Your task to perform on an android device: Go to battery settings Image 0: 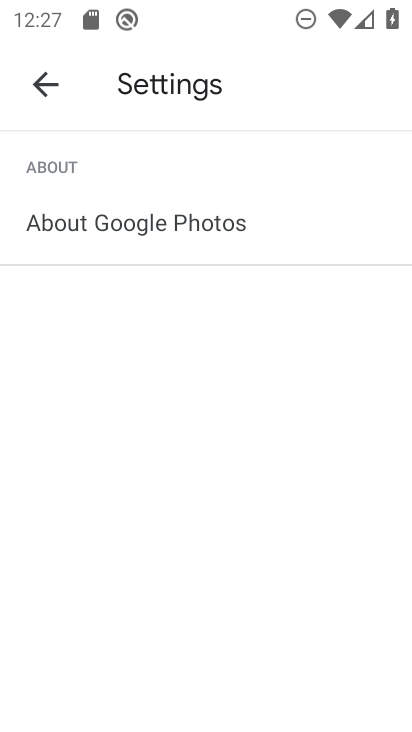
Step 0: press home button
Your task to perform on an android device: Go to battery settings Image 1: 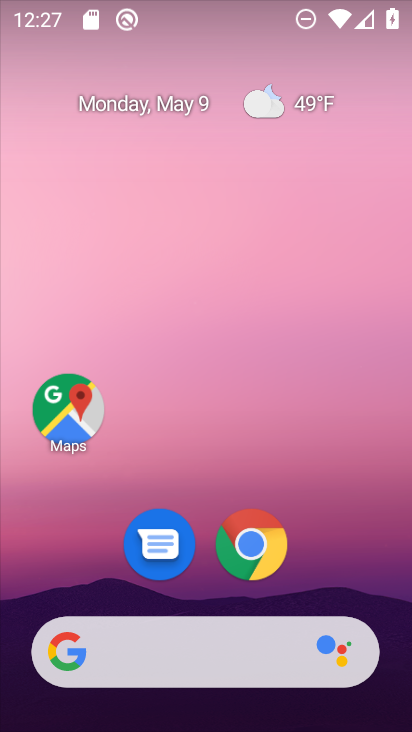
Step 1: drag from (340, 534) to (394, 85)
Your task to perform on an android device: Go to battery settings Image 2: 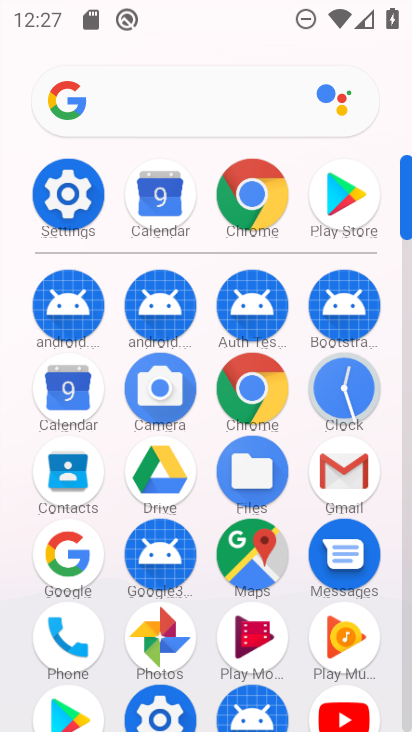
Step 2: click (64, 195)
Your task to perform on an android device: Go to battery settings Image 3: 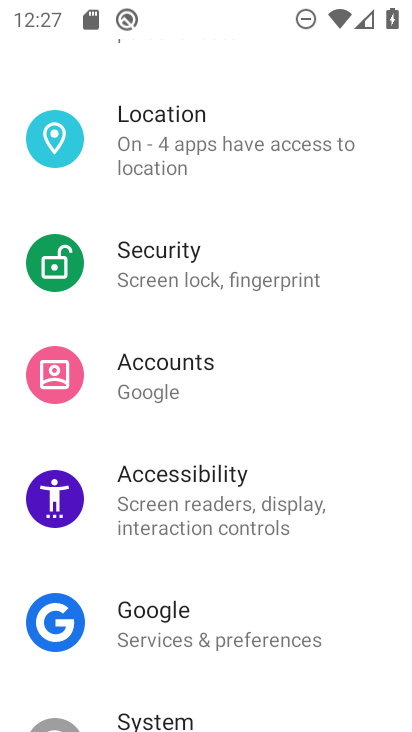
Step 3: drag from (207, 693) to (261, 308)
Your task to perform on an android device: Go to battery settings Image 4: 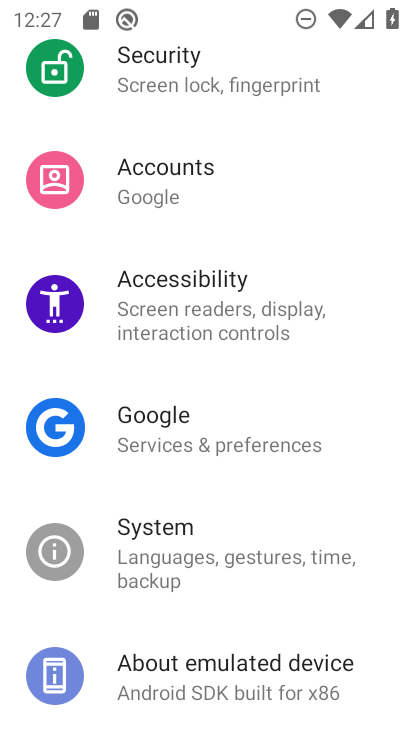
Step 4: drag from (307, 198) to (315, 642)
Your task to perform on an android device: Go to battery settings Image 5: 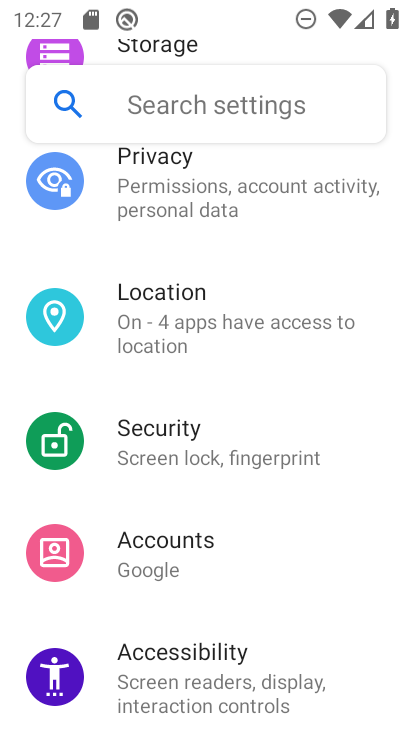
Step 5: drag from (298, 274) to (266, 676)
Your task to perform on an android device: Go to battery settings Image 6: 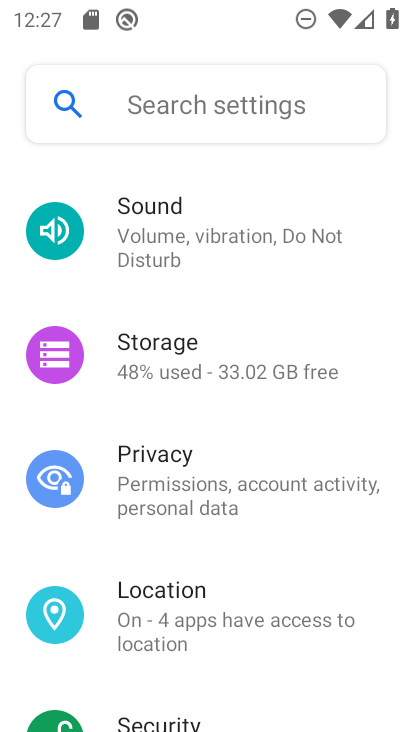
Step 6: drag from (289, 232) to (272, 601)
Your task to perform on an android device: Go to battery settings Image 7: 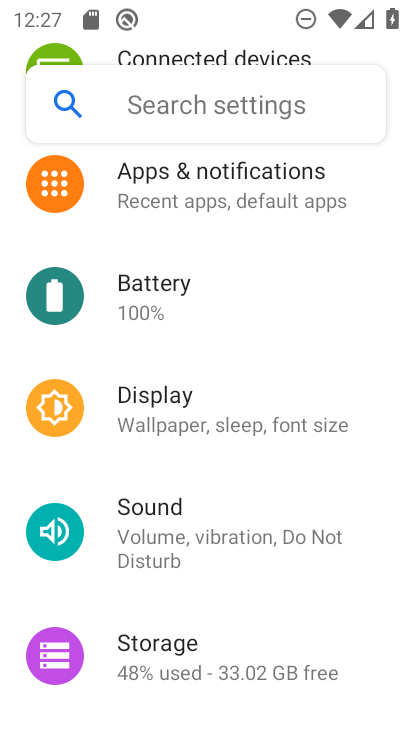
Step 7: click (188, 295)
Your task to perform on an android device: Go to battery settings Image 8: 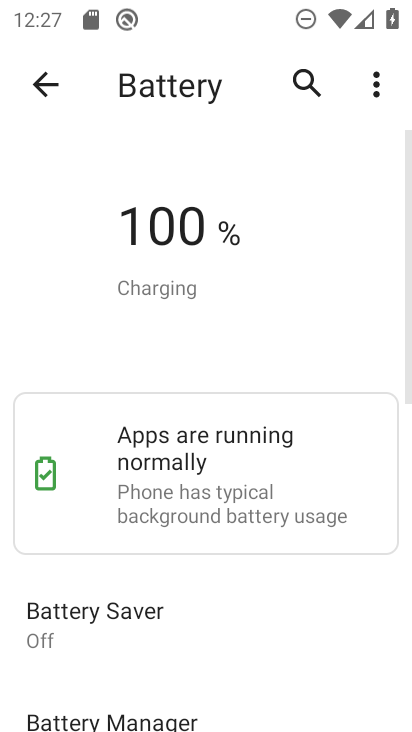
Step 8: task complete